Your task to perform on an android device: Go to eBay Image 0: 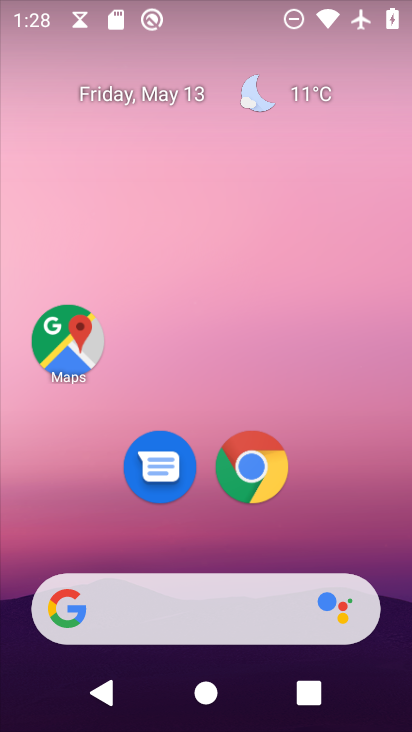
Step 0: click (268, 469)
Your task to perform on an android device: Go to eBay Image 1: 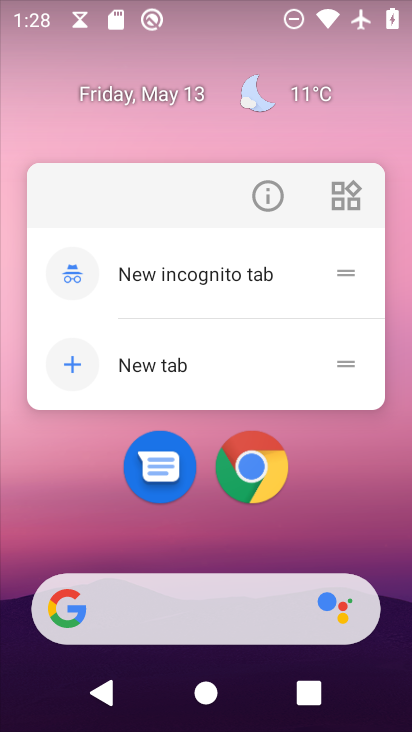
Step 1: click (253, 482)
Your task to perform on an android device: Go to eBay Image 2: 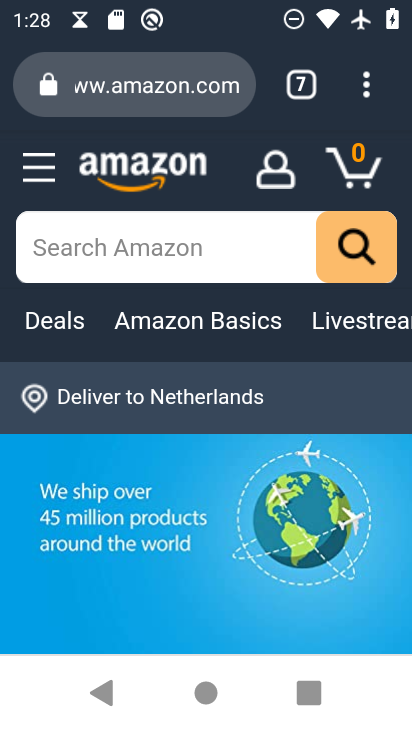
Step 2: click (298, 89)
Your task to perform on an android device: Go to eBay Image 3: 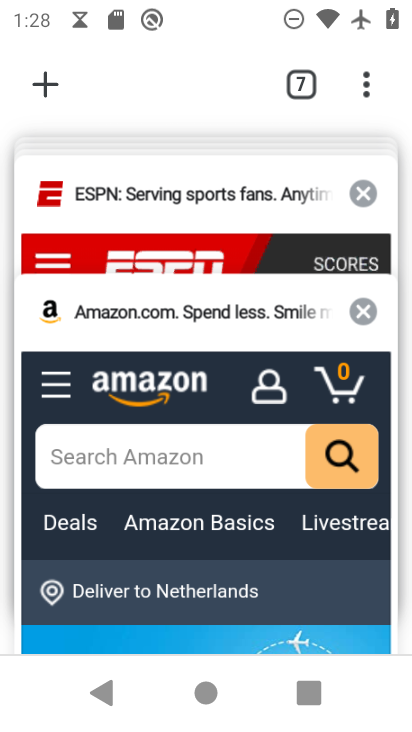
Step 3: drag from (207, 191) to (146, 611)
Your task to perform on an android device: Go to eBay Image 4: 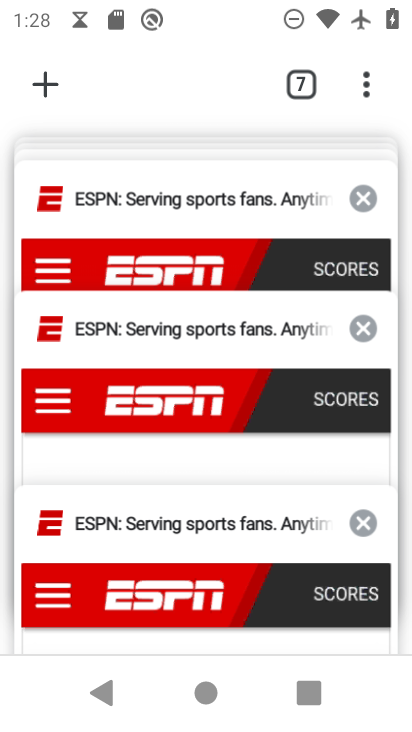
Step 4: drag from (148, 372) to (133, 619)
Your task to perform on an android device: Go to eBay Image 5: 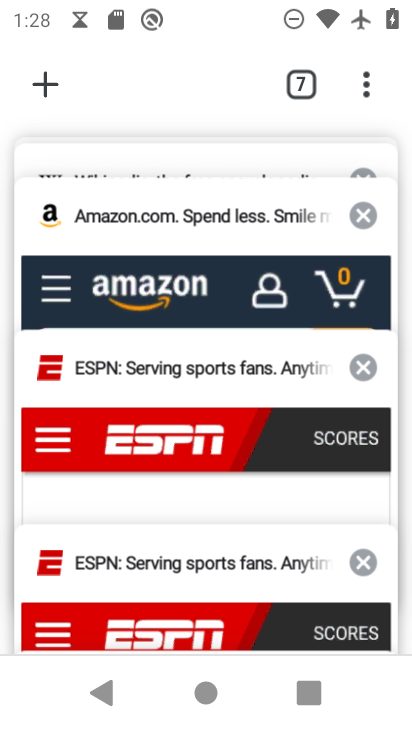
Step 5: drag from (175, 202) to (165, 603)
Your task to perform on an android device: Go to eBay Image 6: 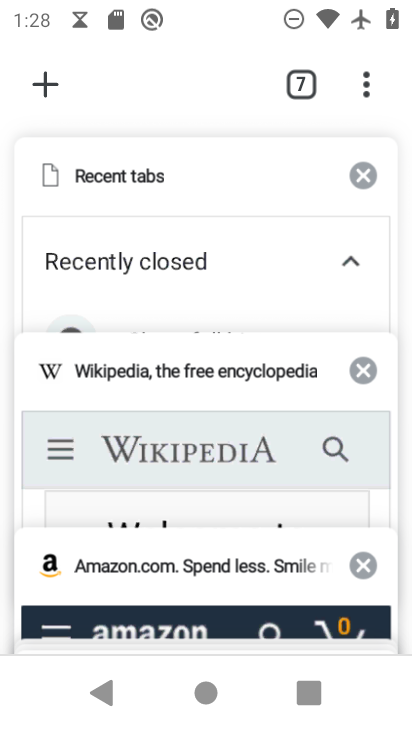
Step 6: click (47, 83)
Your task to perform on an android device: Go to eBay Image 7: 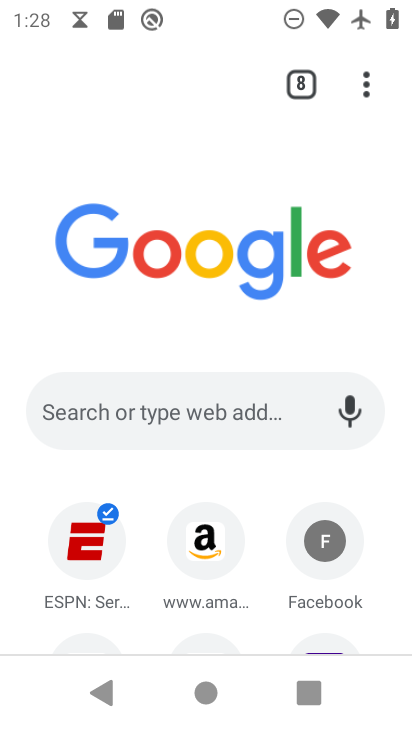
Step 7: drag from (255, 571) to (251, 263)
Your task to perform on an android device: Go to eBay Image 8: 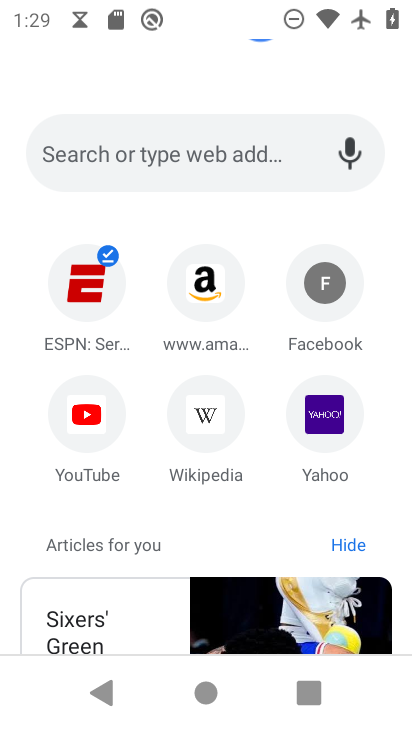
Step 8: click (194, 140)
Your task to perform on an android device: Go to eBay Image 9: 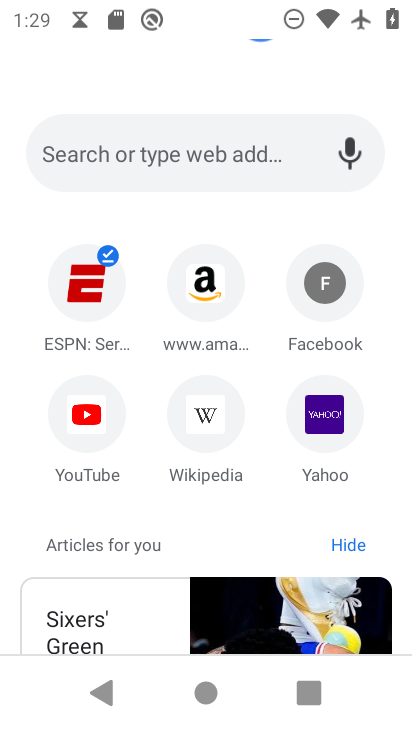
Step 9: type "Ebay"
Your task to perform on an android device: Go to eBay Image 10: 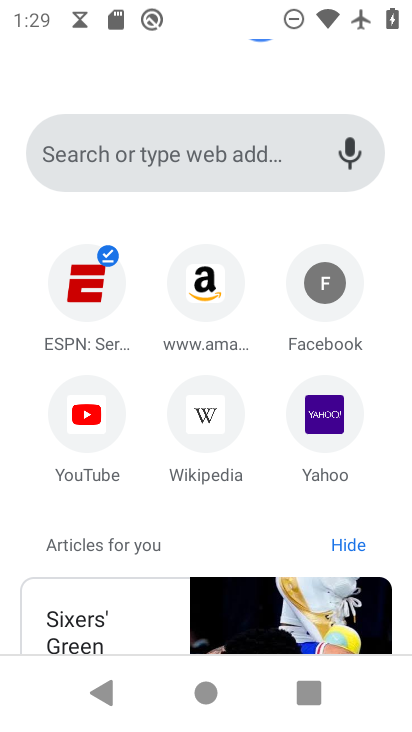
Step 10: click (201, 163)
Your task to perform on an android device: Go to eBay Image 11: 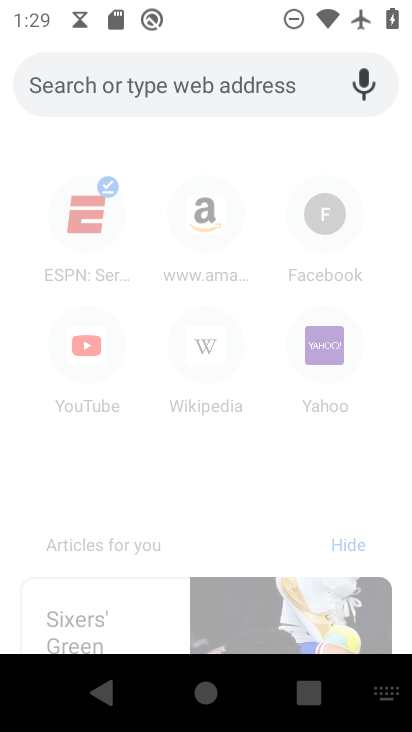
Step 11: type "eBay"
Your task to perform on an android device: Go to eBay Image 12: 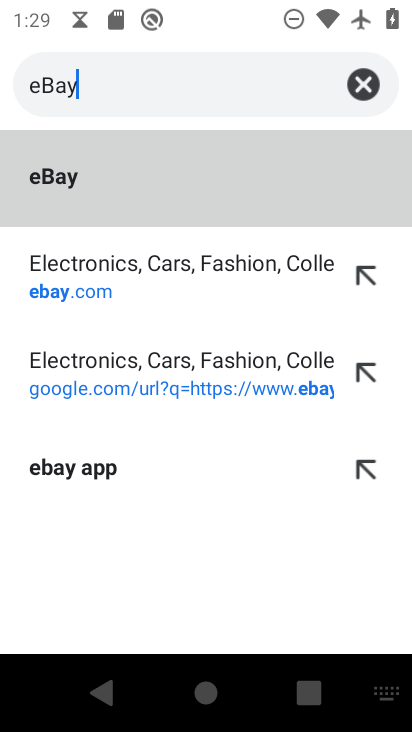
Step 12: click (127, 236)
Your task to perform on an android device: Go to eBay Image 13: 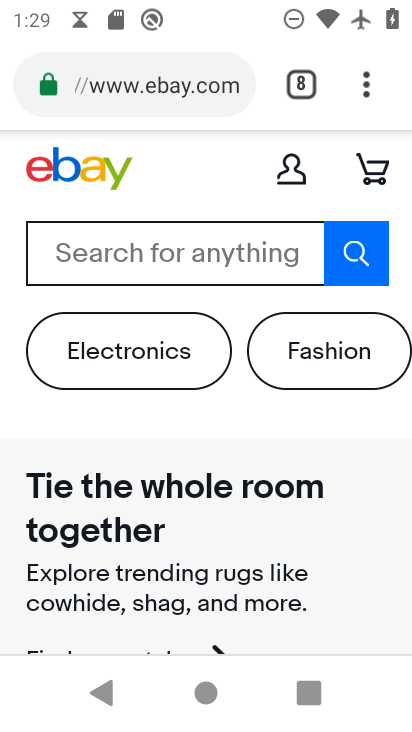
Step 13: task complete